Your task to perform on an android device: open a bookmark in the chrome app Image 0: 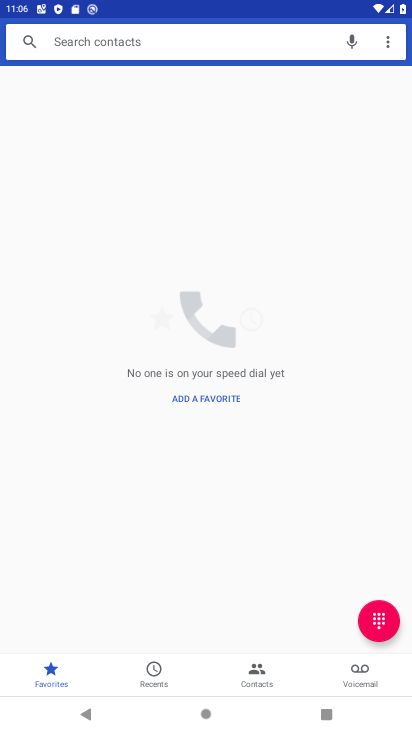
Step 0: press home button
Your task to perform on an android device: open a bookmark in the chrome app Image 1: 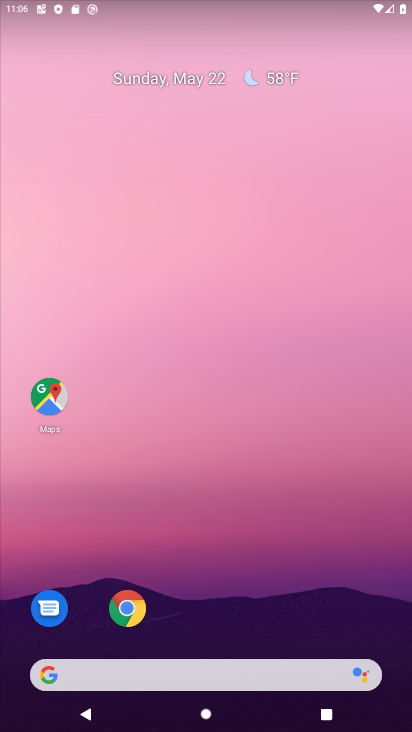
Step 1: click (126, 607)
Your task to perform on an android device: open a bookmark in the chrome app Image 2: 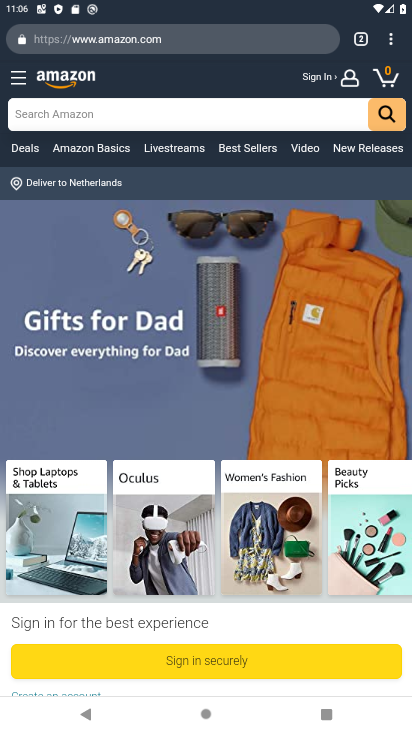
Step 2: click (392, 45)
Your task to perform on an android device: open a bookmark in the chrome app Image 3: 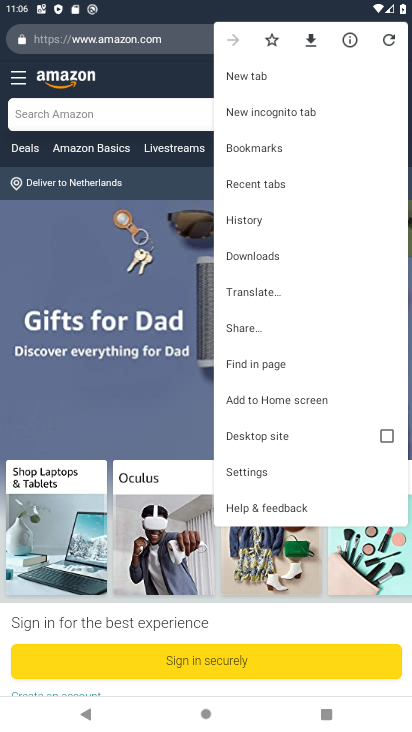
Step 3: click (255, 147)
Your task to perform on an android device: open a bookmark in the chrome app Image 4: 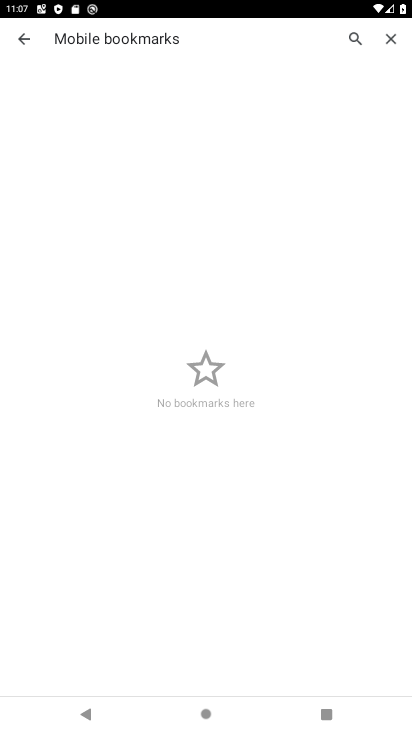
Step 4: task complete